Your task to perform on an android device: Open eBay Image 0: 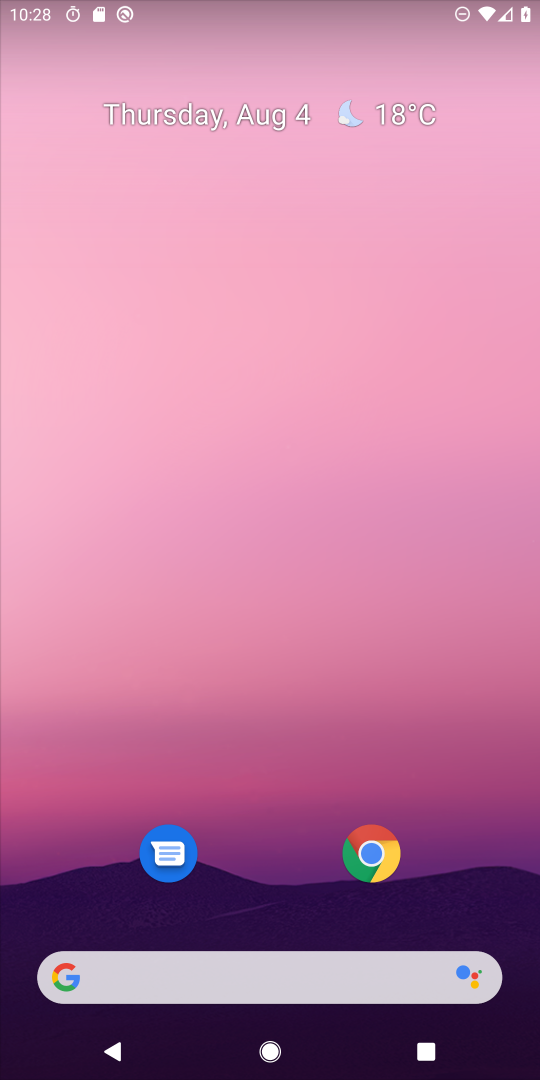
Step 0: click (383, 850)
Your task to perform on an android device: Open eBay Image 1: 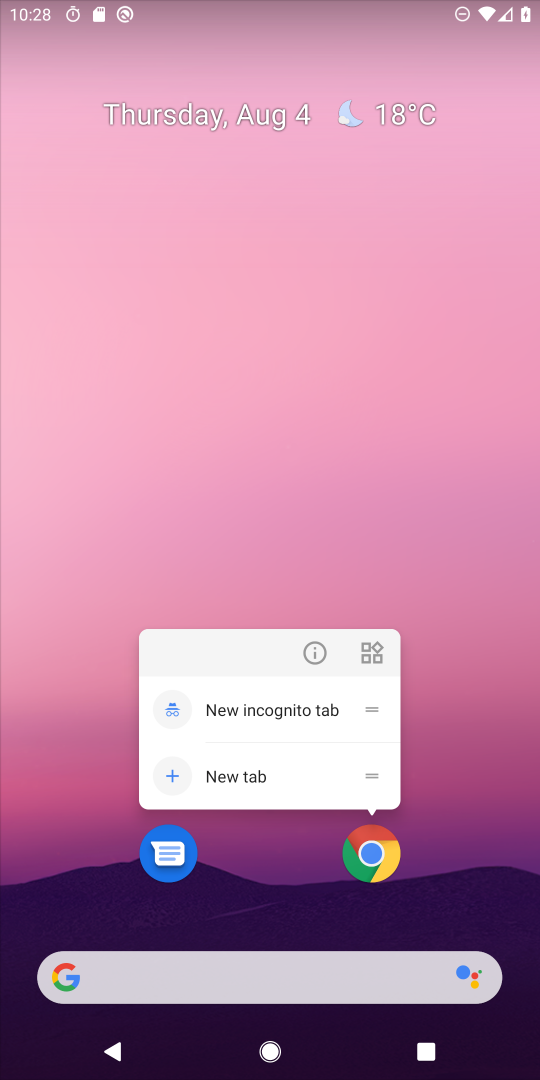
Step 1: click (366, 859)
Your task to perform on an android device: Open eBay Image 2: 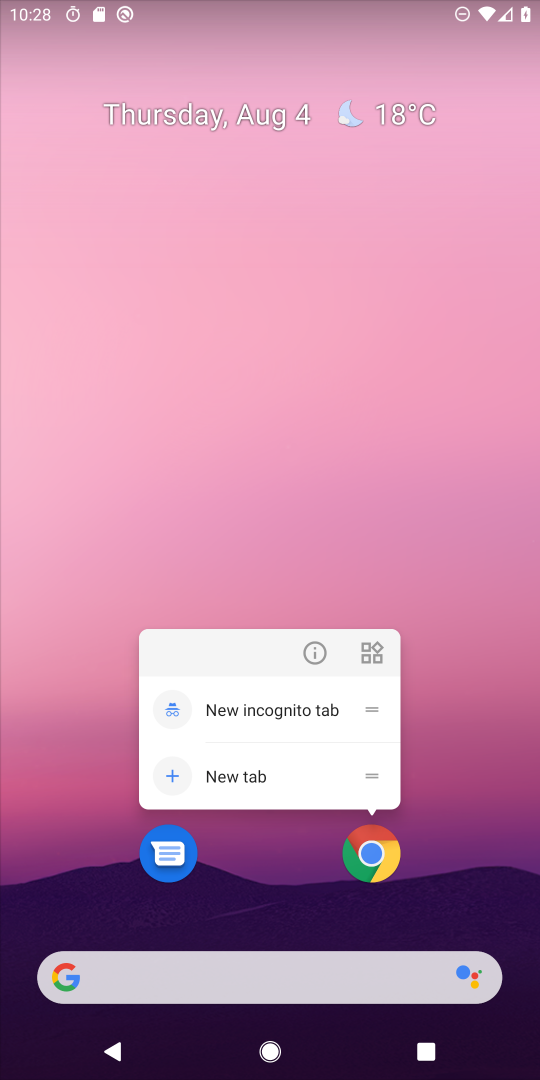
Step 2: click (368, 854)
Your task to perform on an android device: Open eBay Image 3: 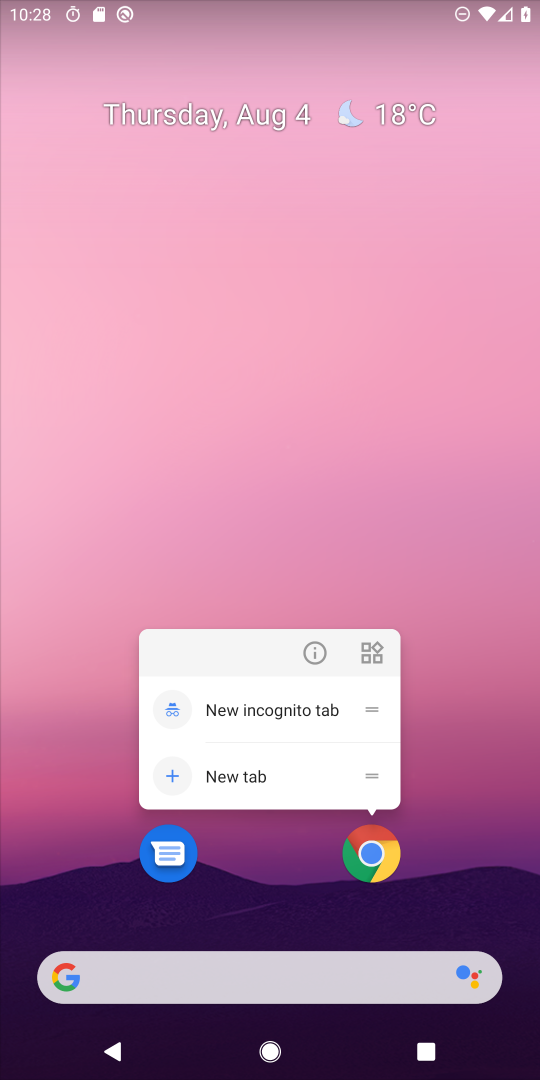
Step 3: click (368, 853)
Your task to perform on an android device: Open eBay Image 4: 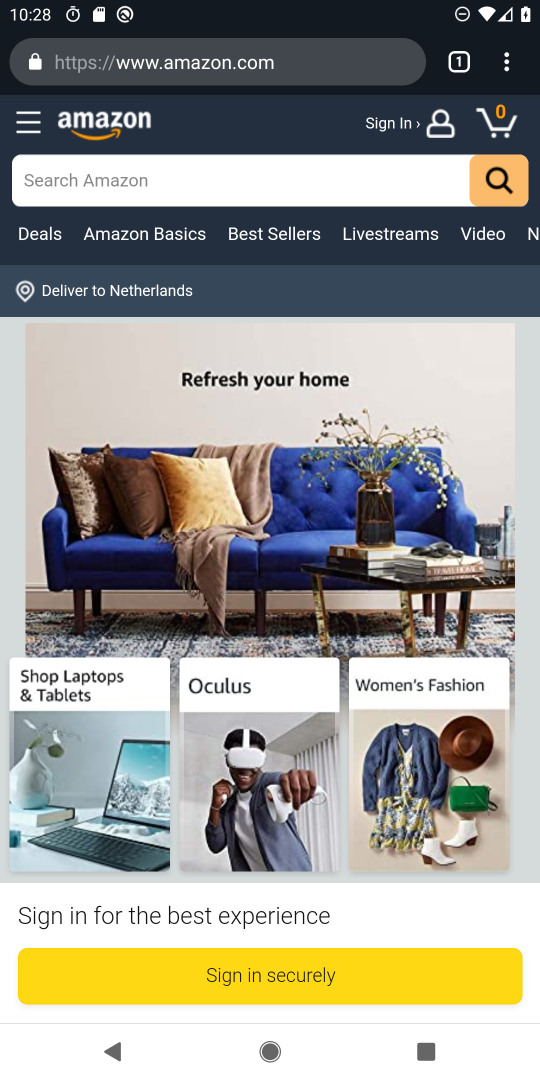
Step 4: click (259, 61)
Your task to perform on an android device: Open eBay Image 5: 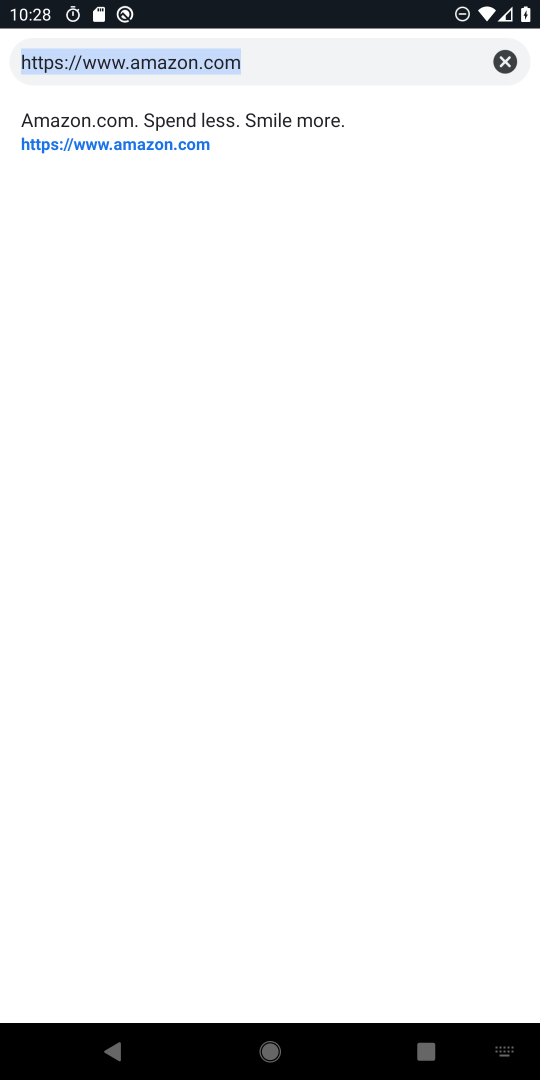
Step 5: type "eBay"
Your task to perform on an android device: Open eBay Image 6: 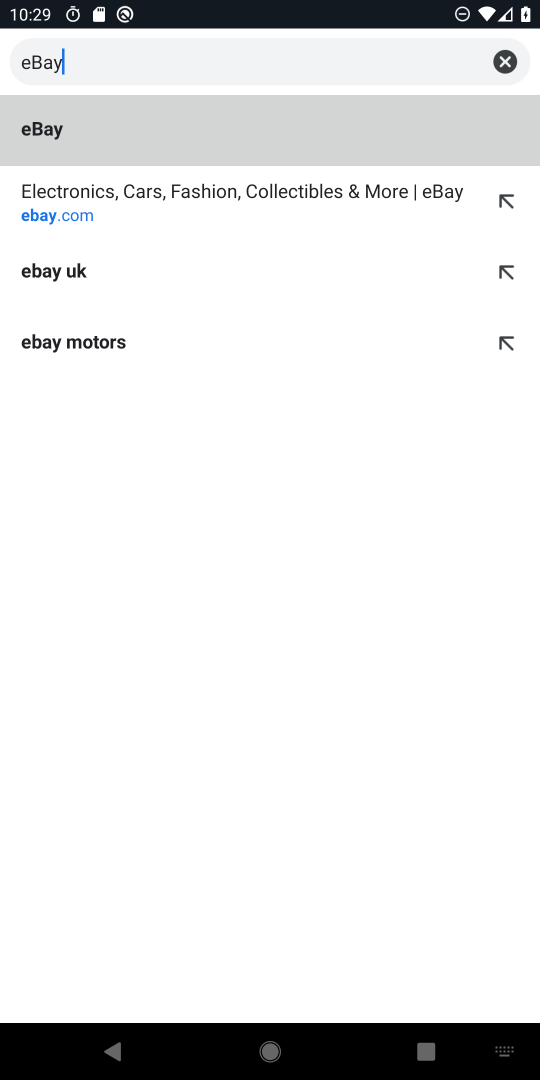
Step 6: click (149, 213)
Your task to perform on an android device: Open eBay Image 7: 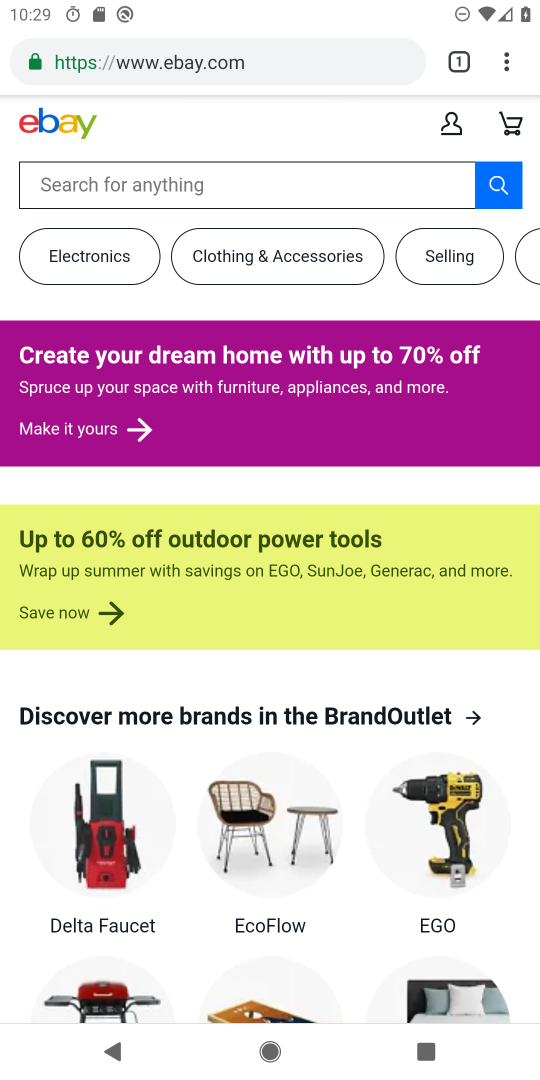
Step 7: task complete